Your task to perform on an android device: turn off location history Image 0: 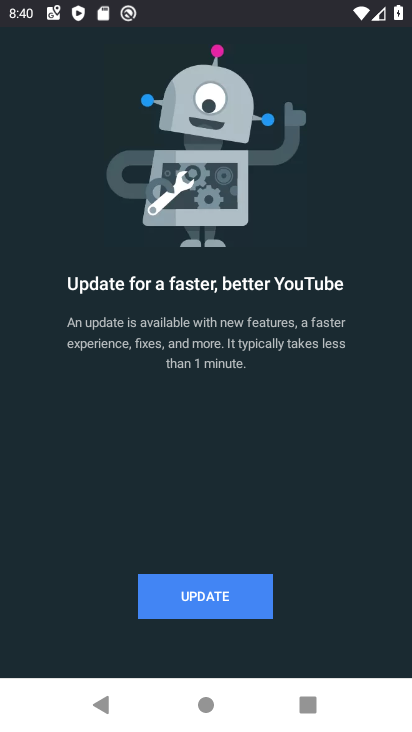
Step 0: press home button
Your task to perform on an android device: turn off location history Image 1: 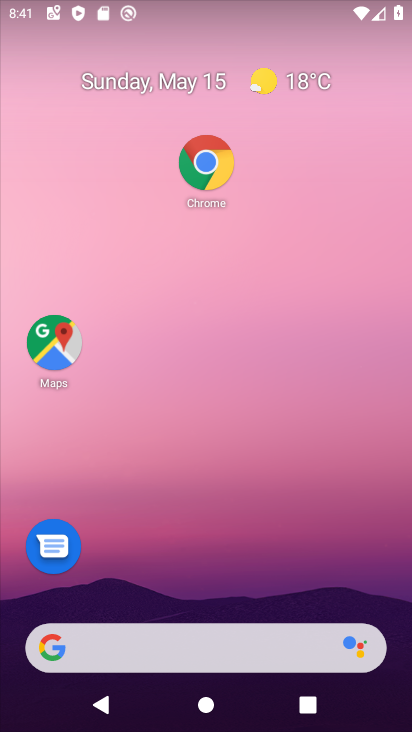
Step 1: drag from (277, 490) to (267, 222)
Your task to perform on an android device: turn off location history Image 2: 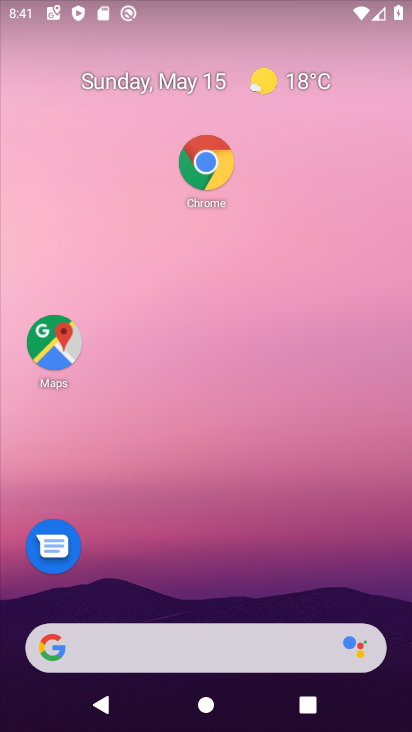
Step 2: drag from (241, 456) to (303, 182)
Your task to perform on an android device: turn off location history Image 3: 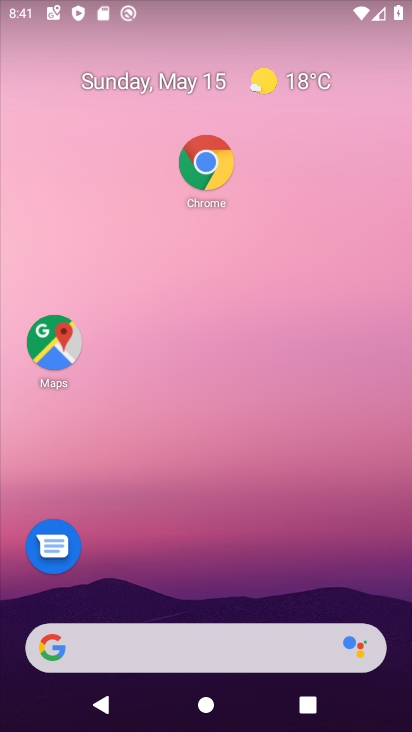
Step 3: drag from (241, 589) to (274, 253)
Your task to perform on an android device: turn off location history Image 4: 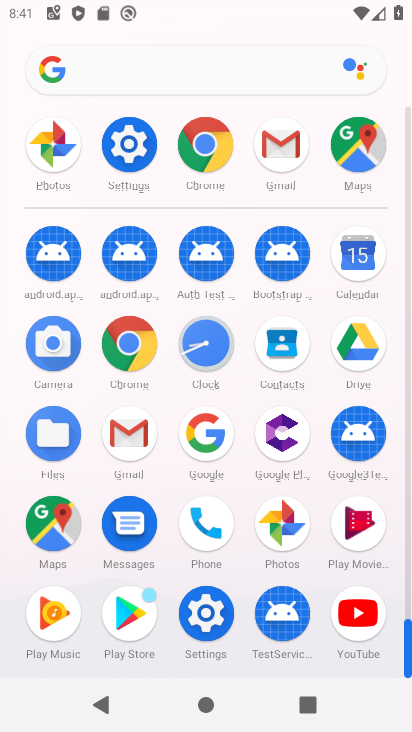
Step 4: click (127, 141)
Your task to perform on an android device: turn off location history Image 5: 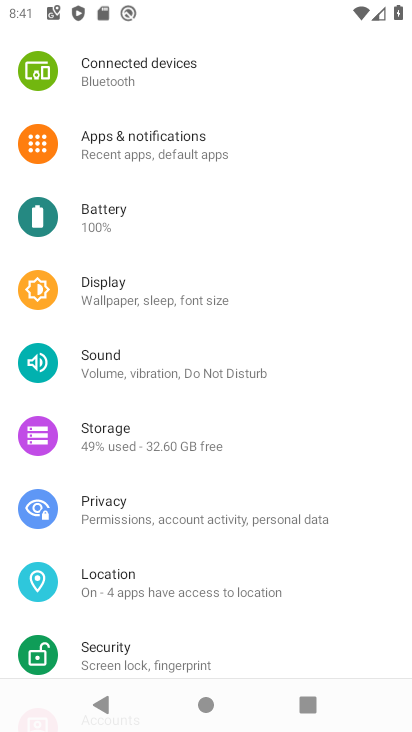
Step 5: click (155, 578)
Your task to perform on an android device: turn off location history Image 6: 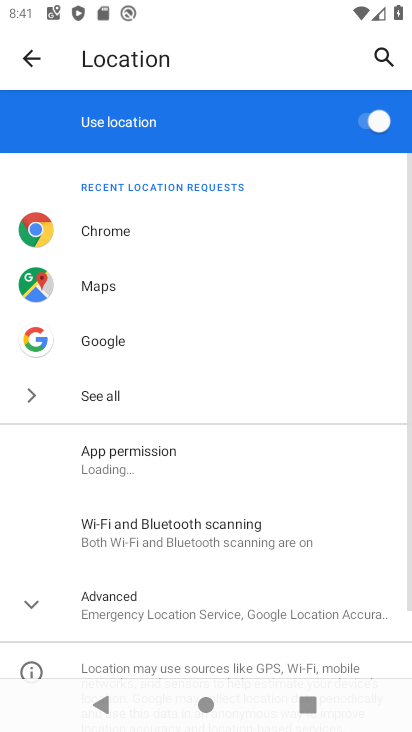
Step 6: drag from (160, 573) to (192, 347)
Your task to perform on an android device: turn off location history Image 7: 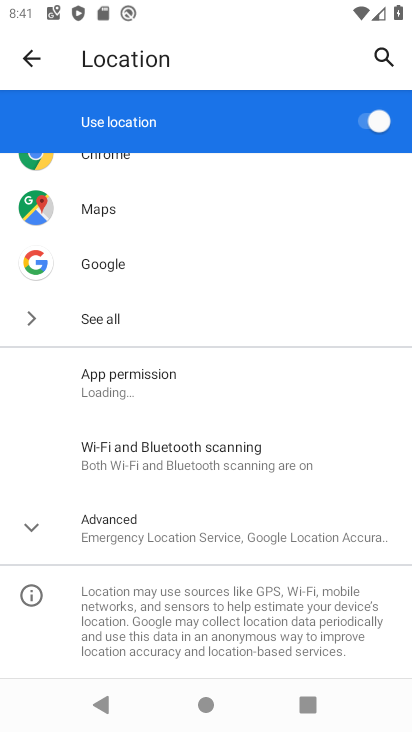
Step 7: click (132, 511)
Your task to perform on an android device: turn off location history Image 8: 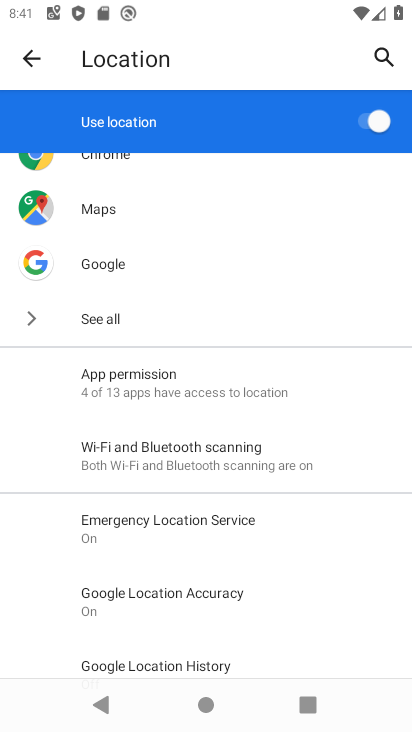
Step 8: drag from (231, 591) to (261, 443)
Your task to perform on an android device: turn off location history Image 9: 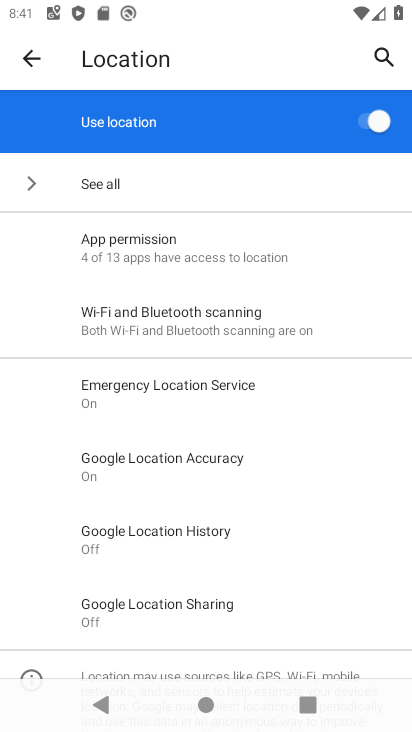
Step 9: click (218, 544)
Your task to perform on an android device: turn off location history Image 10: 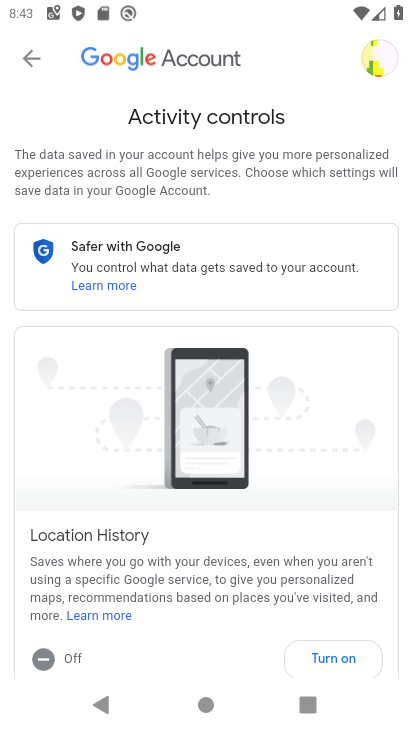
Step 10: task complete